Your task to perform on an android device: Show me productivity apps on the Play Store Image 0: 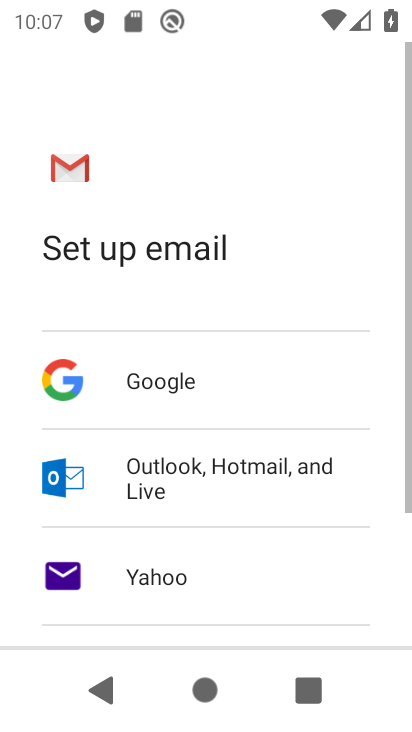
Step 0: press home button
Your task to perform on an android device: Show me productivity apps on the Play Store Image 1: 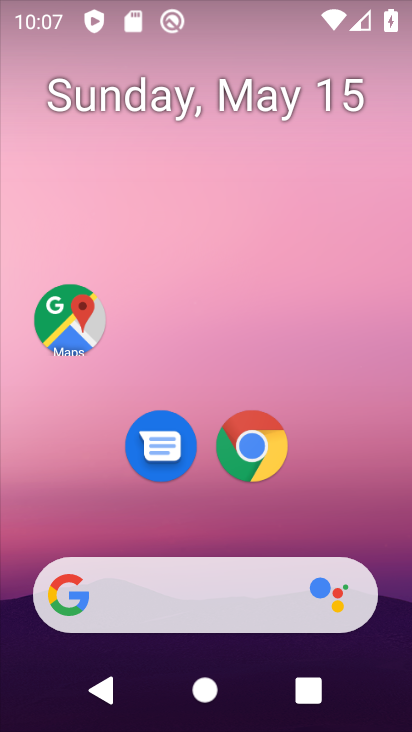
Step 1: drag from (312, 496) to (280, 3)
Your task to perform on an android device: Show me productivity apps on the Play Store Image 2: 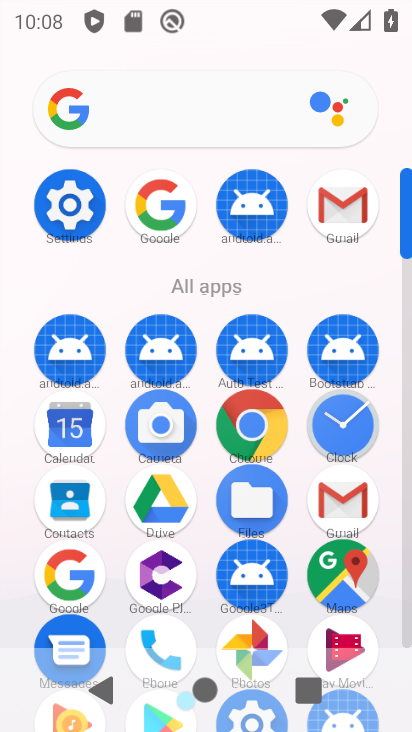
Step 2: drag from (215, 675) to (241, 250)
Your task to perform on an android device: Show me productivity apps on the Play Store Image 3: 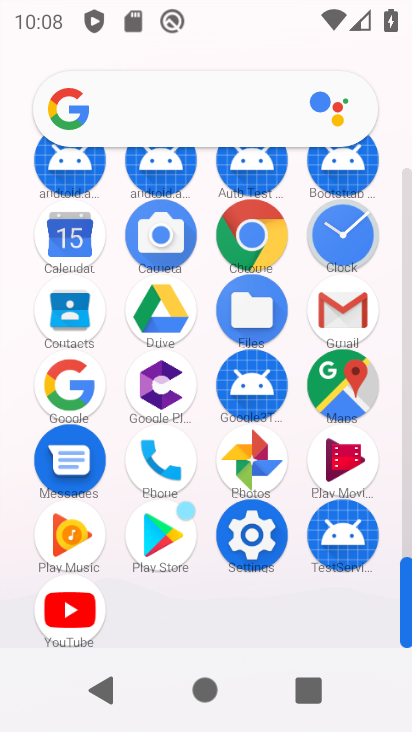
Step 3: click (161, 521)
Your task to perform on an android device: Show me productivity apps on the Play Store Image 4: 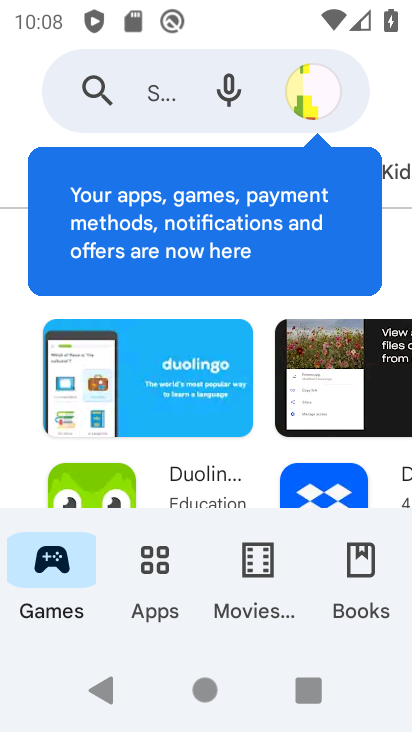
Step 4: click (166, 565)
Your task to perform on an android device: Show me productivity apps on the Play Store Image 5: 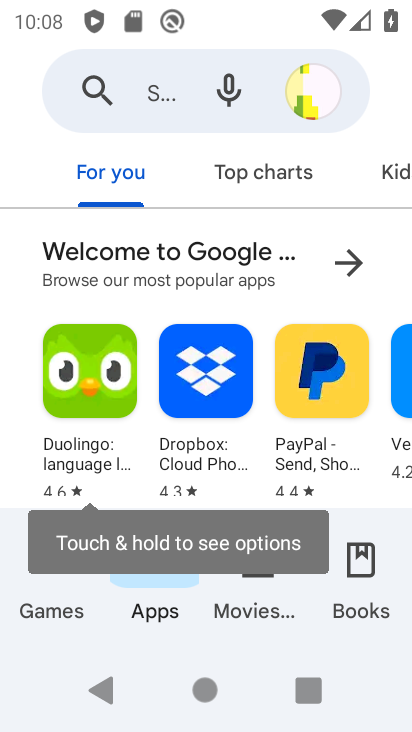
Step 5: drag from (384, 188) to (126, 175)
Your task to perform on an android device: Show me productivity apps on the Play Store Image 6: 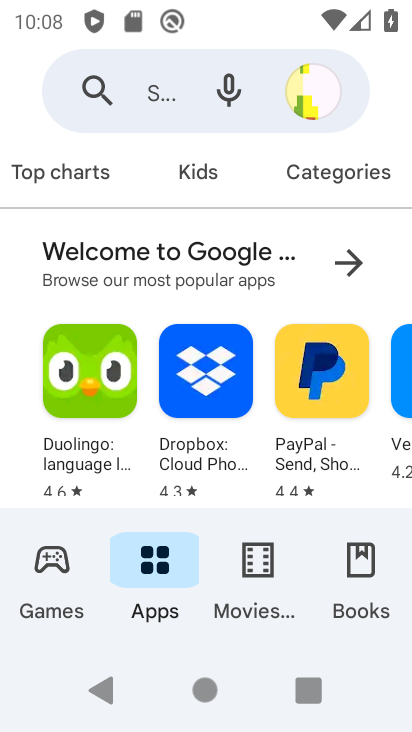
Step 6: click (320, 180)
Your task to perform on an android device: Show me productivity apps on the Play Store Image 7: 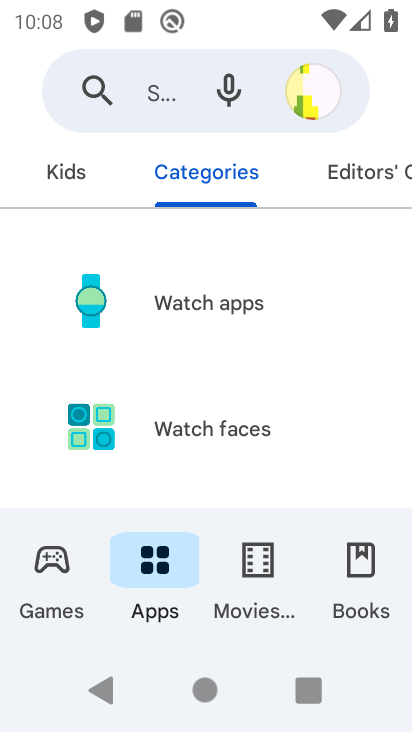
Step 7: drag from (209, 473) to (245, 220)
Your task to perform on an android device: Show me productivity apps on the Play Store Image 8: 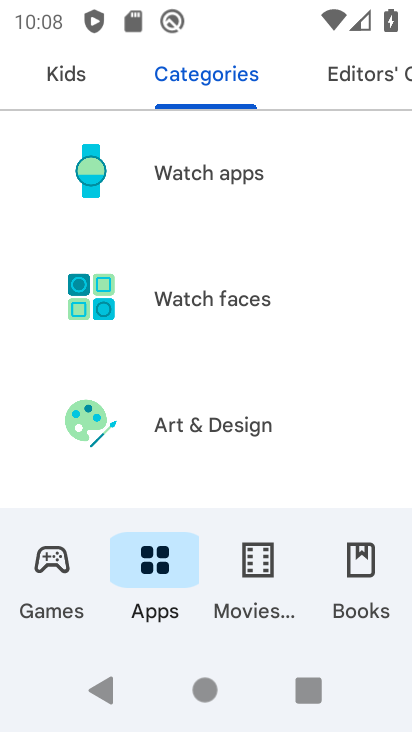
Step 8: drag from (234, 432) to (271, 159)
Your task to perform on an android device: Show me productivity apps on the Play Store Image 9: 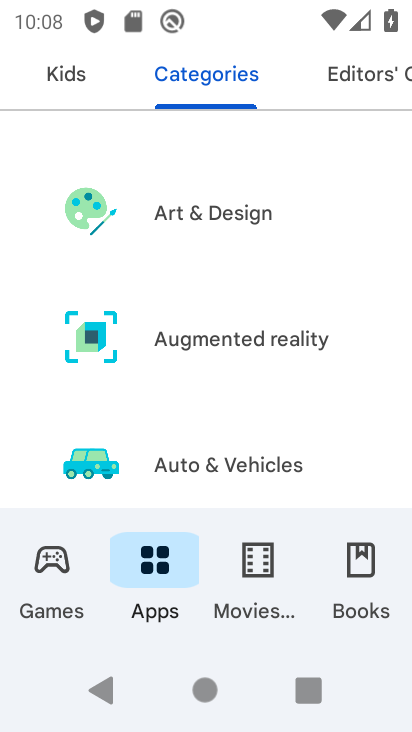
Step 9: drag from (251, 326) to (297, 14)
Your task to perform on an android device: Show me productivity apps on the Play Store Image 10: 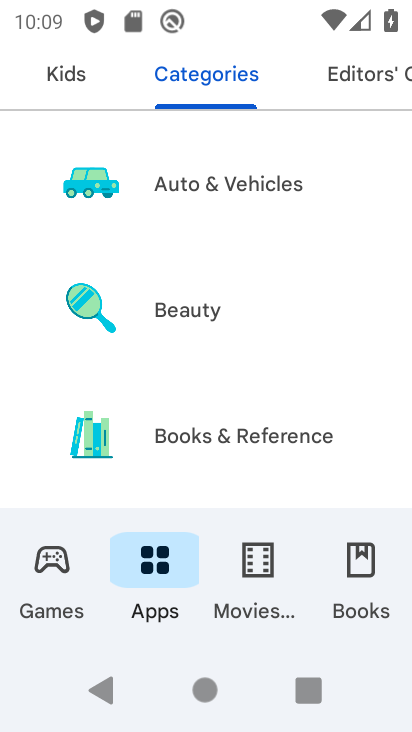
Step 10: drag from (246, 412) to (225, 154)
Your task to perform on an android device: Show me productivity apps on the Play Store Image 11: 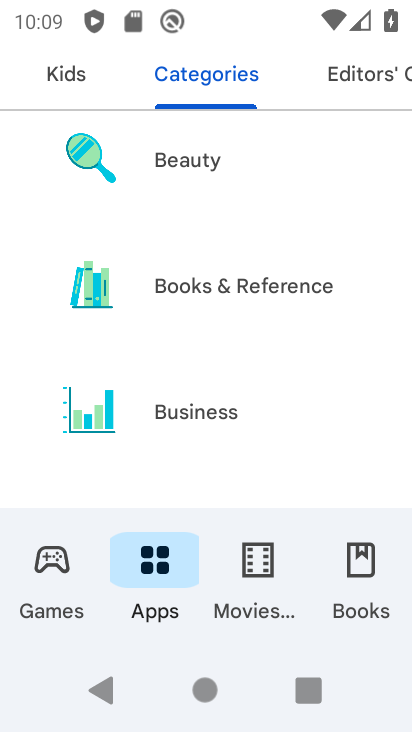
Step 11: drag from (214, 434) to (217, 201)
Your task to perform on an android device: Show me productivity apps on the Play Store Image 12: 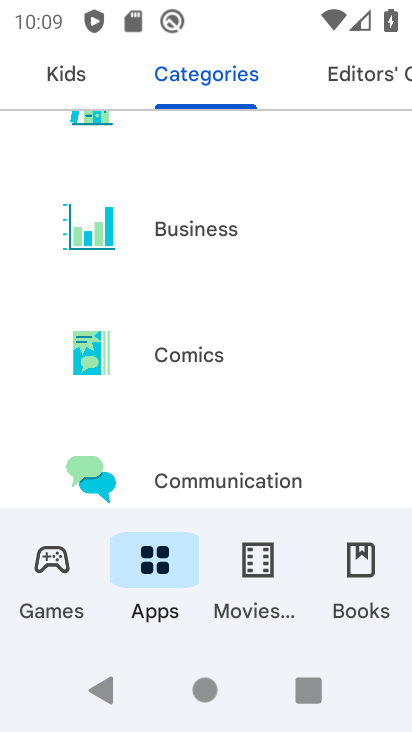
Step 12: drag from (191, 341) to (232, 68)
Your task to perform on an android device: Show me productivity apps on the Play Store Image 13: 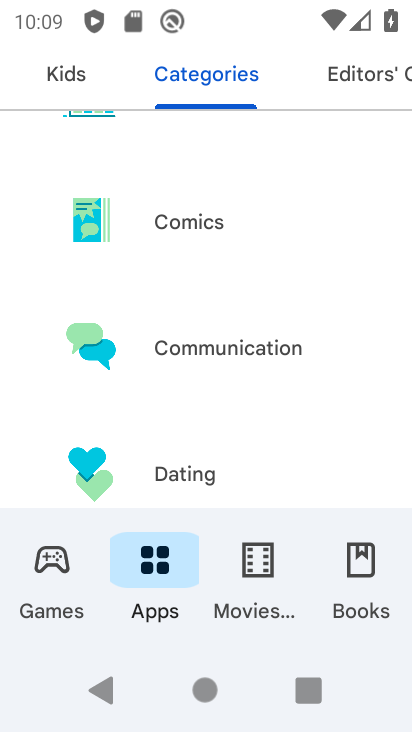
Step 13: drag from (262, 457) to (271, 200)
Your task to perform on an android device: Show me productivity apps on the Play Store Image 14: 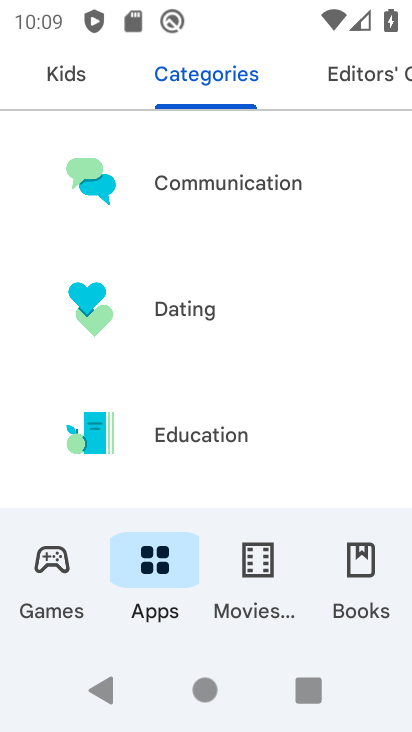
Step 14: drag from (258, 375) to (268, 181)
Your task to perform on an android device: Show me productivity apps on the Play Store Image 15: 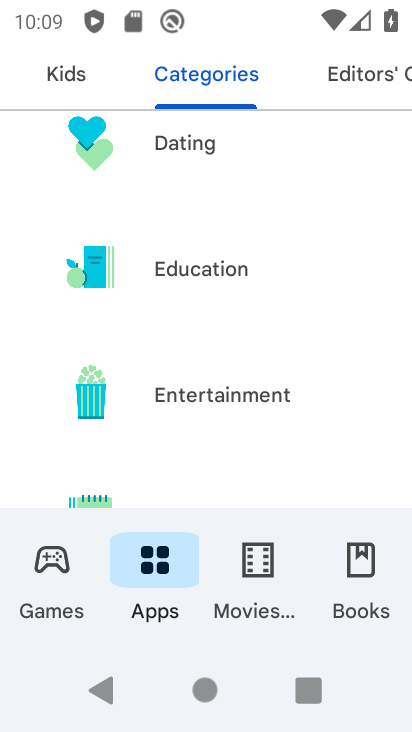
Step 15: drag from (245, 454) to (271, 191)
Your task to perform on an android device: Show me productivity apps on the Play Store Image 16: 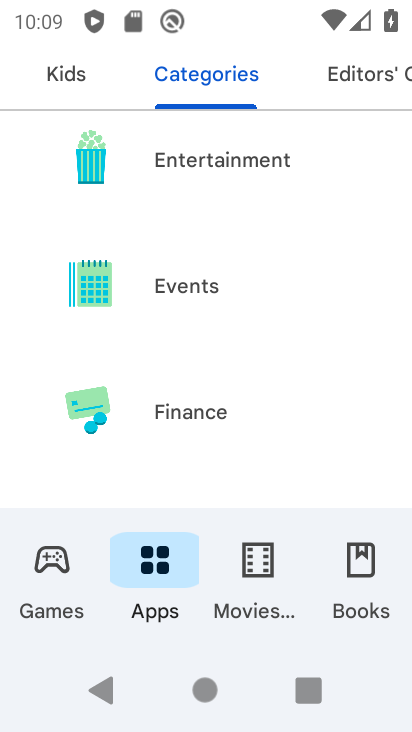
Step 16: drag from (273, 476) to (354, 153)
Your task to perform on an android device: Show me productivity apps on the Play Store Image 17: 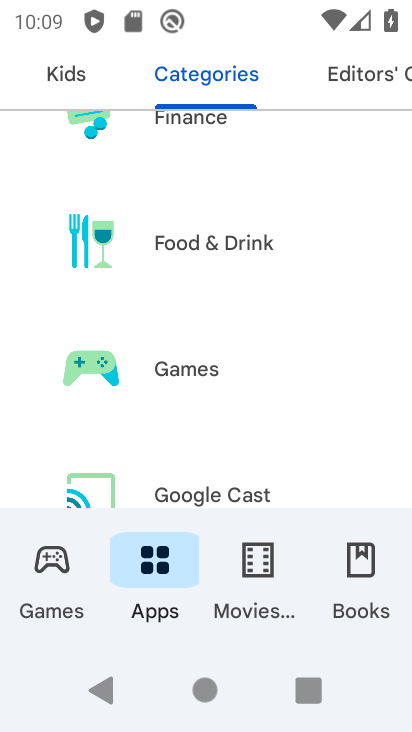
Step 17: drag from (268, 458) to (307, 163)
Your task to perform on an android device: Show me productivity apps on the Play Store Image 18: 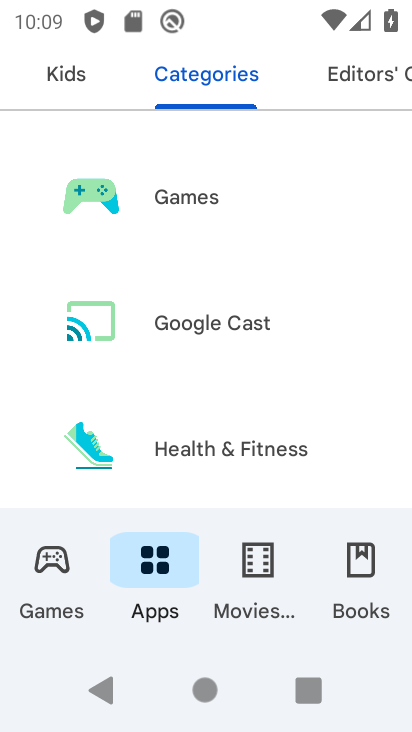
Step 18: drag from (226, 443) to (281, 110)
Your task to perform on an android device: Show me productivity apps on the Play Store Image 19: 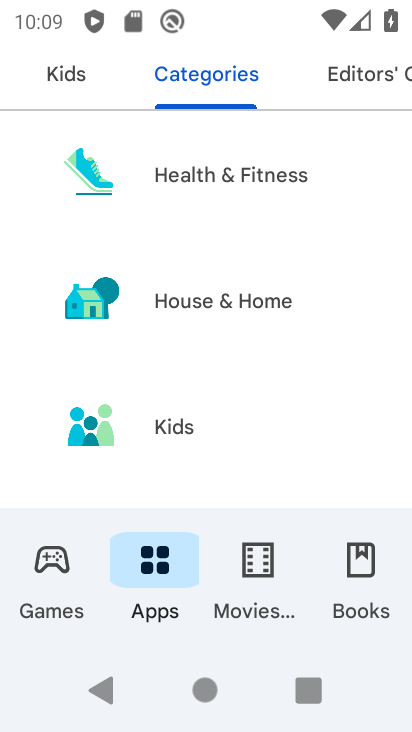
Step 19: drag from (239, 437) to (323, 100)
Your task to perform on an android device: Show me productivity apps on the Play Store Image 20: 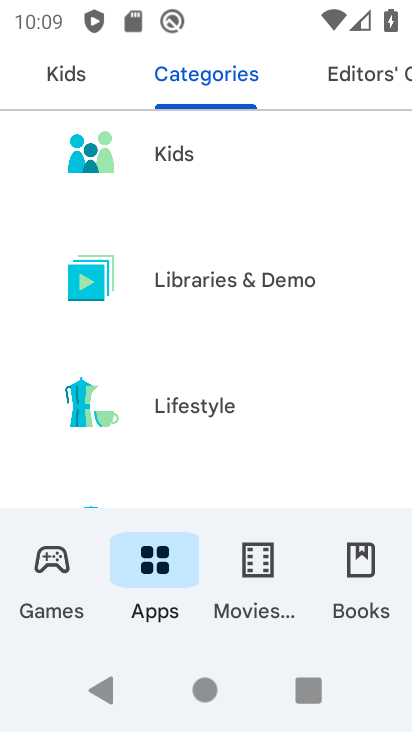
Step 20: drag from (255, 452) to (296, 144)
Your task to perform on an android device: Show me productivity apps on the Play Store Image 21: 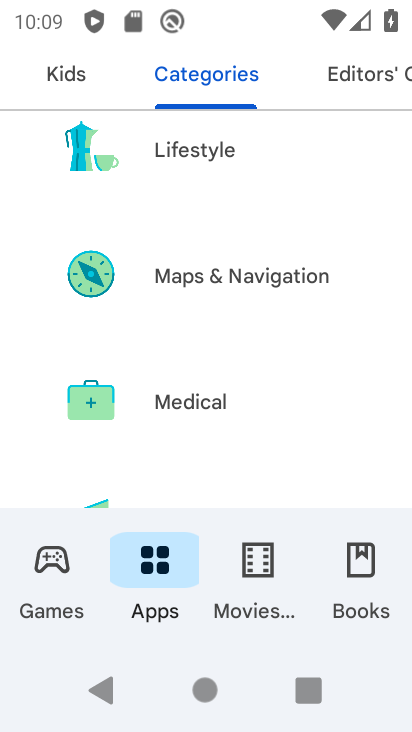
Step 21: drag from (266, 420) to (293, 183)
Your task to perform on an android device: Show me productivity apps on the Play Store Image 22: 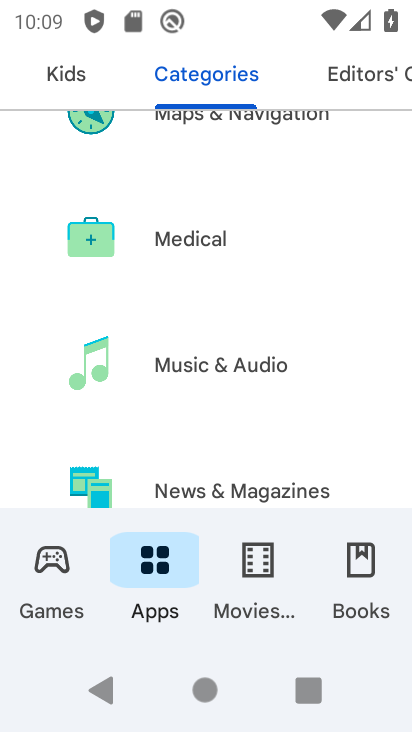
Step 22: drag from (264, 448) to (269, 141)
Your task to perform on an android device: Show me productivity apps on the Play Store Image 23: 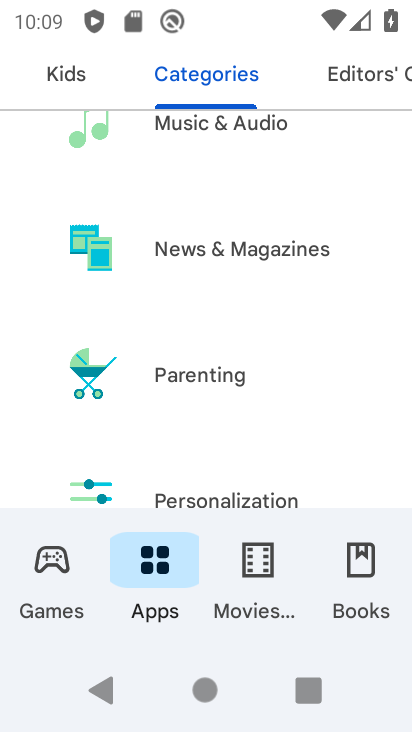
Step 23: drag from (247, 465) to (296, 100)
Your task to perform on an android device: Show me productivity apps on the Play Store Image 24: 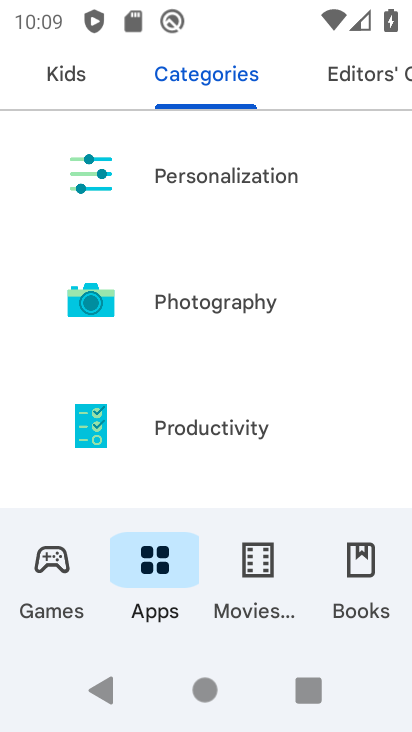
Step 24: click (256, 434)
Your task to perform on an android device: Show me productivity apps on the Play Store Image 25: 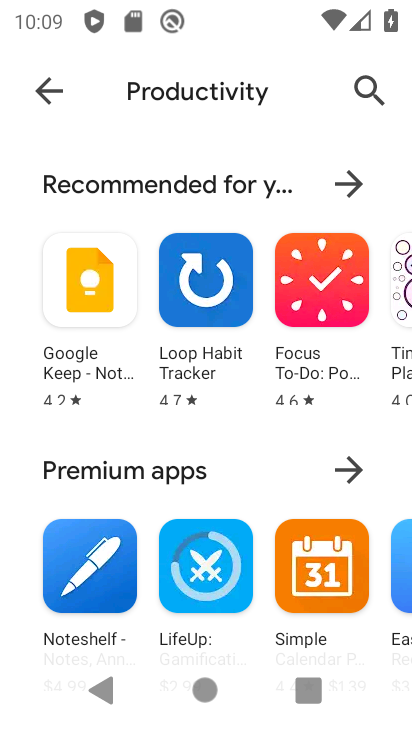
Step 25: task complete